Your task to perform on an android device: Open maps Image 0: 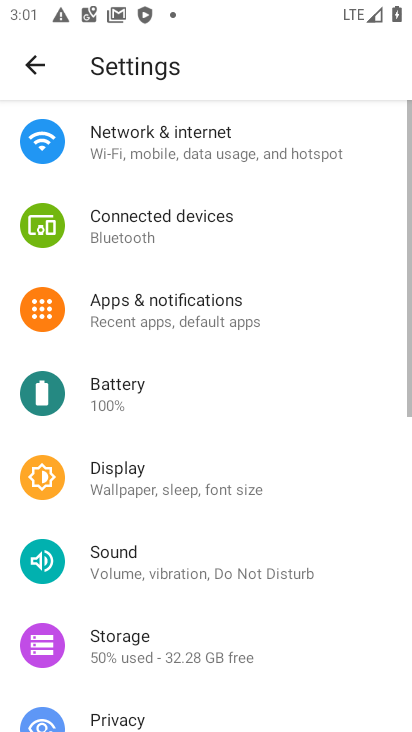
Step 0: press home button
Your task to perform on an android device: Open maps Image 1: 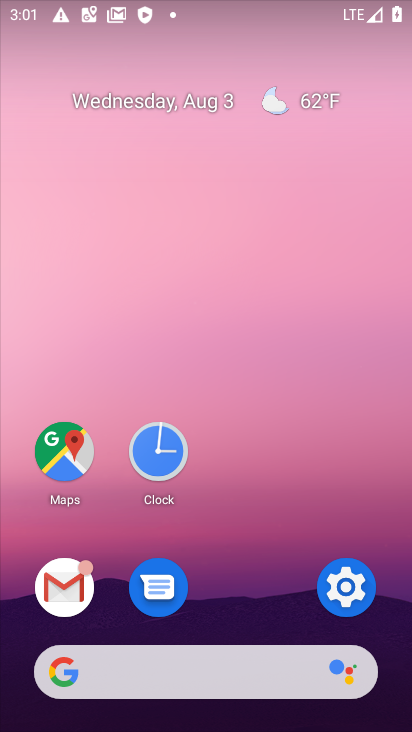
Step 1: click (68, 450)
Your task to perform on an android device: Open maps Image 2: 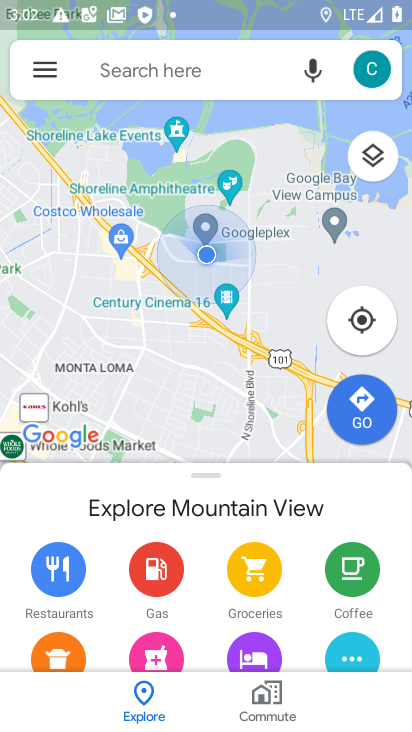
Step 2: task complete